Your task to perform on an android device: turn on wifi Image 0: 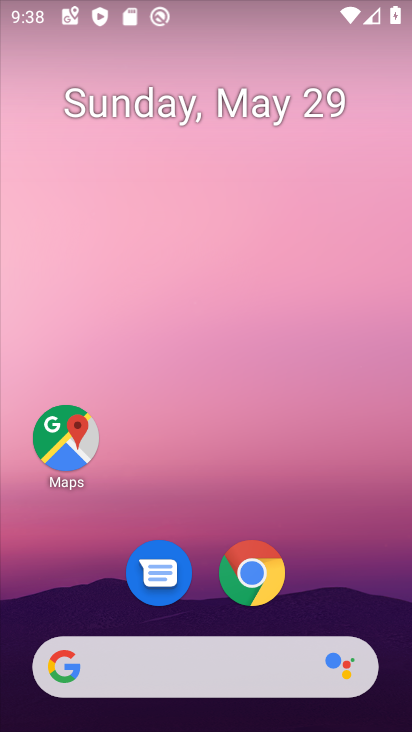
Step 0: drag from (337, 546) to (242, 82)
Your task to perform on an android device: turn on wifi Image 1: 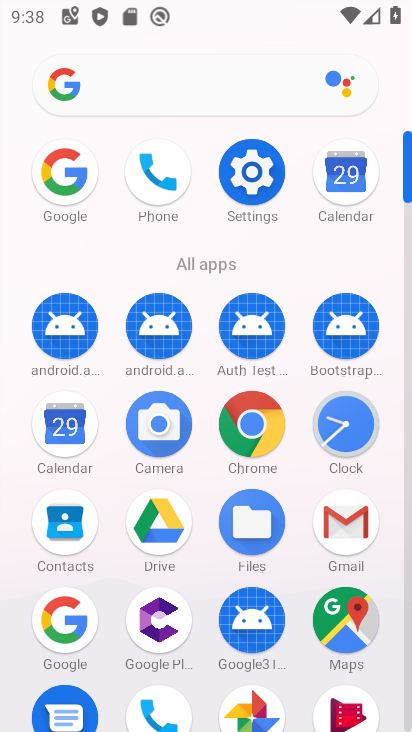
Step 1: click (255, 177)
Your task to perform on an android device: turn on wifi Image 2: 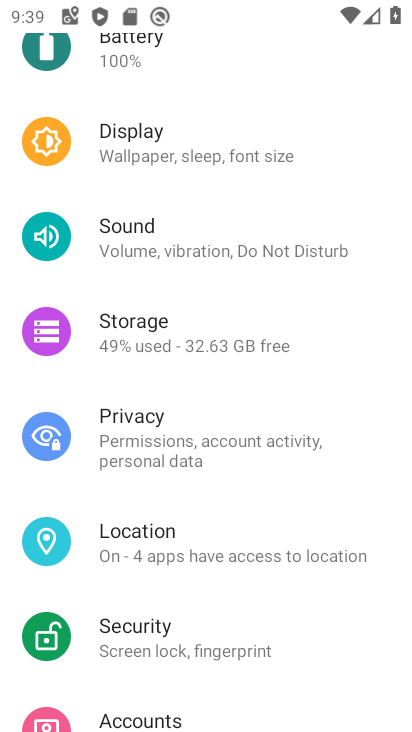
Step 2: drag from (274, 82) to (282, 668)
Your task to perform on an android device: turn on wifi Image 3: 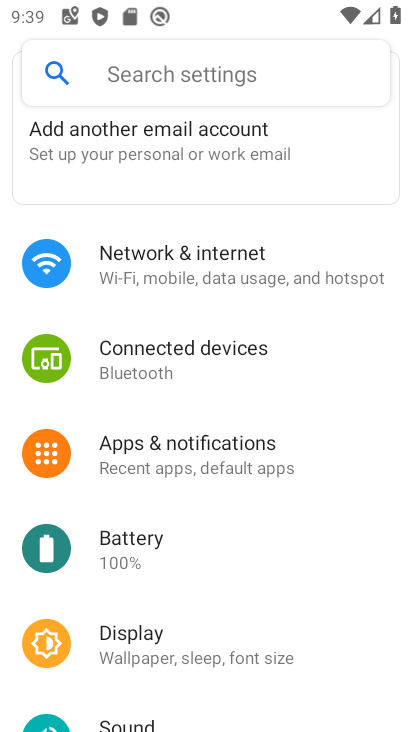
Step 3: click (245, 261)
Your task to perform on an android device: turn on wifi Image 4: 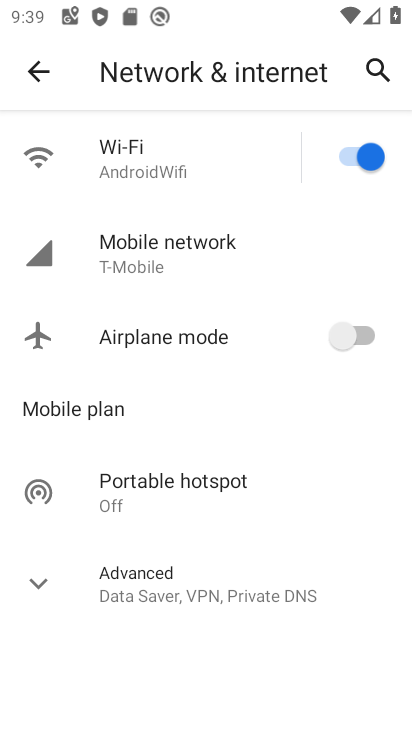
Step 4: task complete